Your task to perform on an android device: Add "alienware aurora" to the cart on bestbuy, then select checkout. Image 0: 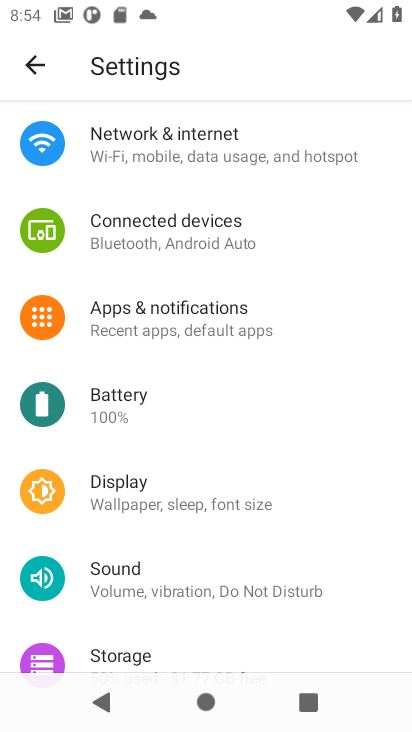
Step 0: press home button
Your task to perform on an android device: Add "alienware aurora" to the cart on bestbuy, then select checkout. Image 1: 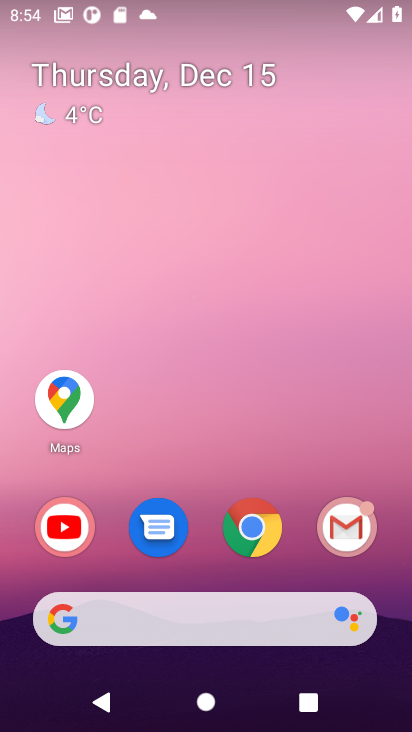
Step 1: click (266, 539)
Your task to perform on an android device: Add "alienware aurora" to the cart on bestbuy, then select checkout. Image 2: 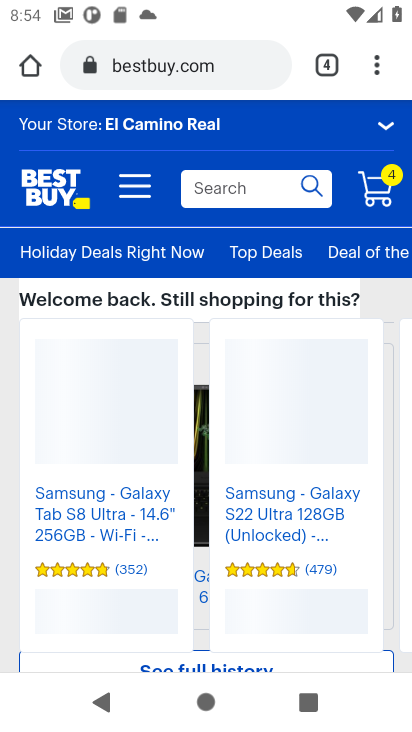
Step 2: click (200, 58)
Your task to perform on an android device: Add "alienware aurora" to the cart on bestbuy, then select checkout. Image 3: 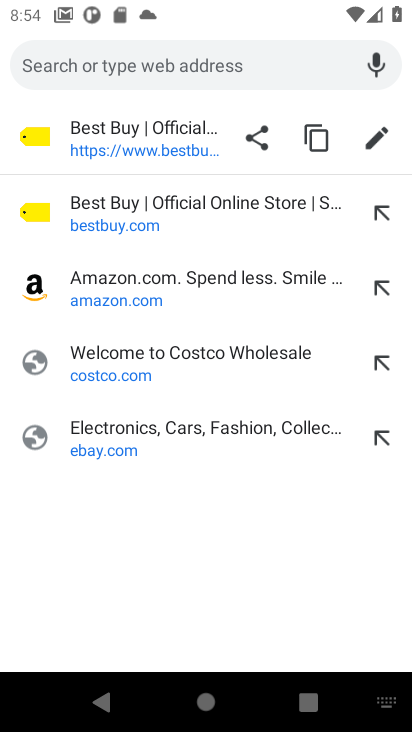
Step 3: click (151, 223)
Your task to perform on an android device: Add "alienware aurora" to the cart on bestbuy, then select checkout. Image 4: 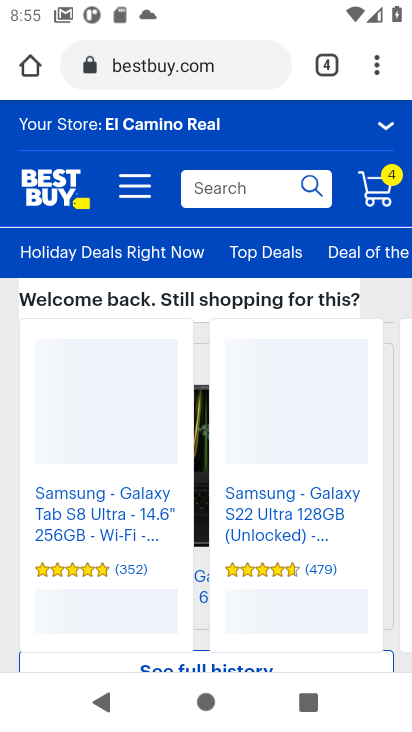
Step 4: click (258, 195)
Your task to perform on an android device: Add "alienware aurora" to the cart on bestbuy, then select checkout. Image 5: 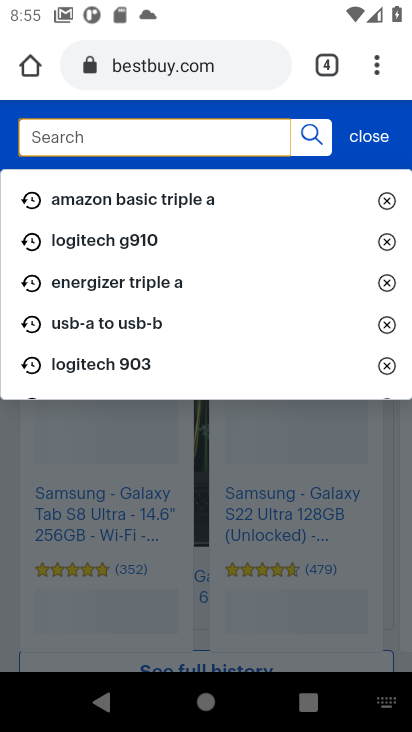
Step 5: type "alienware aurora"
Your task to perform on an android device: Add "alienware aurora" to the cart on bestbuy, then select checkout. Image 6: 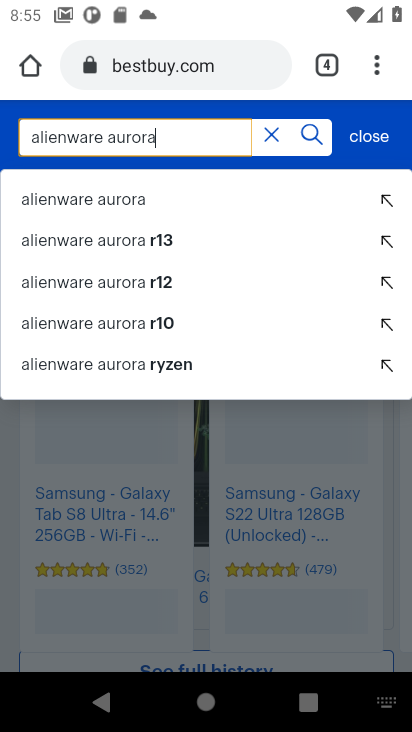
Step 6: click (137, 206)
Your task to perform on an android device: Add "alienware aurora" to the cart on bestbuy, then select checkout. Image 7: 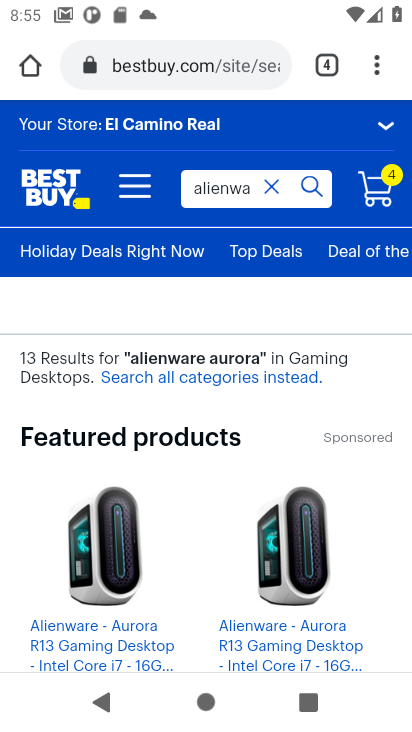
Step 7: click (139, 572)
Your task to perform on an android device: Add "alienware aurora" to the cart on bestbuy, then select checkout. Image 8: 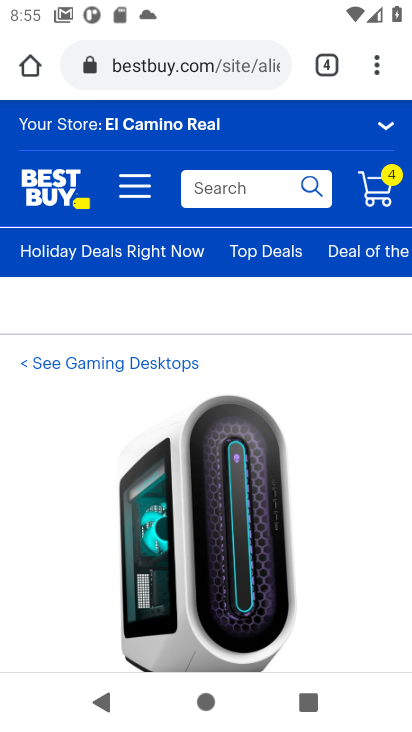
Step 8: task complete